Your task to perform on an android device: Go to Yahoo.com Image 0: 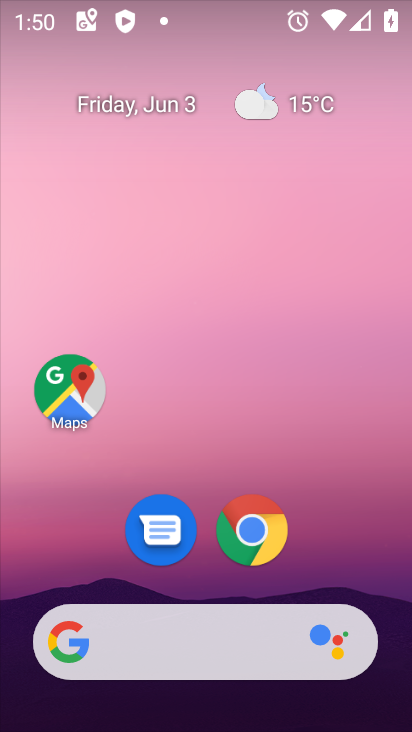
Step 0: click (230, 643)
Your task to perform on an android device: Go to Yahoo.com Image 1: 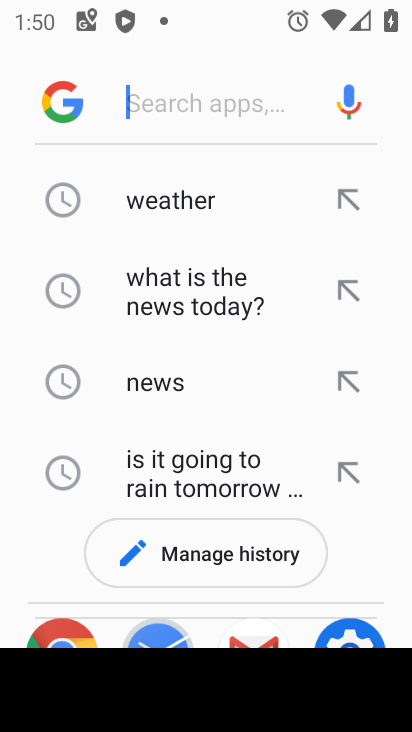
Step 1: type " Yahoo.com"
Your task to perform on an android device: Go to Yahoo.com Image 2: 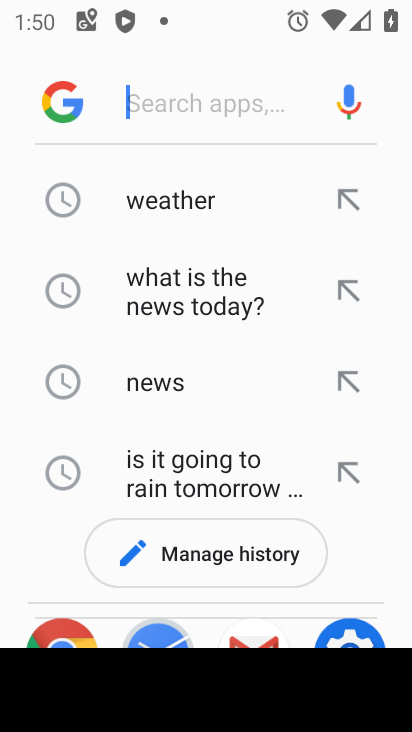
Step 2: click (216, 109)
Your task to perform on an android device: Go to Yahoo.com Image 3: 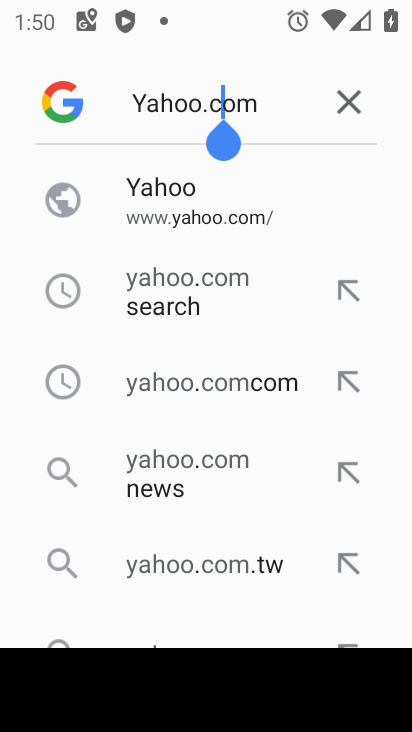
Step 3: click (180, 203)
Your task to perform on an android device: Go to Yahoo.com Image 4: 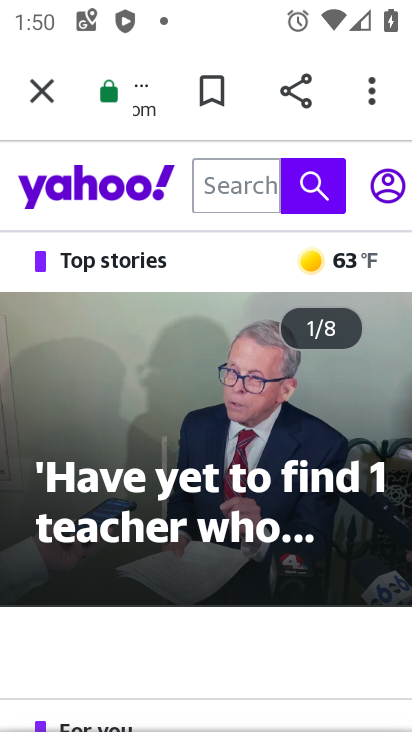
Step 4: task complete